Your task to perform on an android device: refresh tabs in the chrome app Image 0: 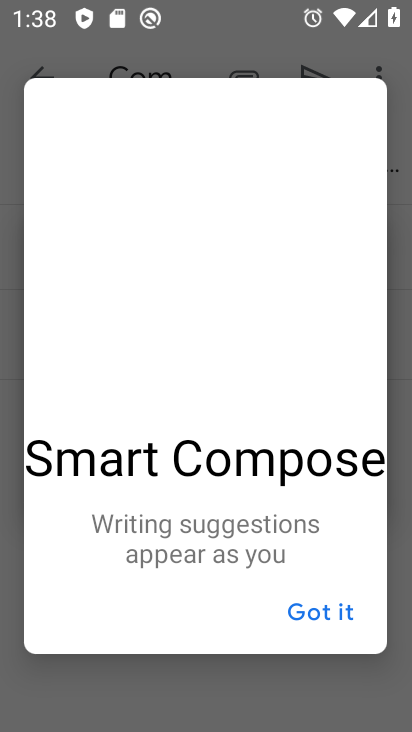
Step 0: press home button
Your task to perform on an android device: refresh tabs in the chrome app Image 1: 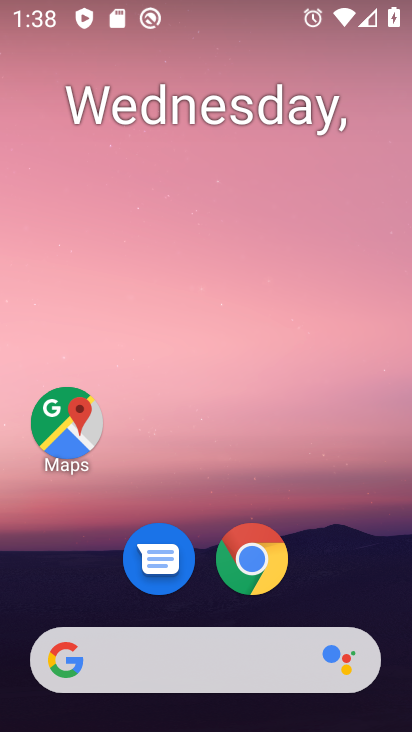
Step 1: click (264, 542)
Your task to perform on an android device: refresh tabs in the chrome app Image 2: 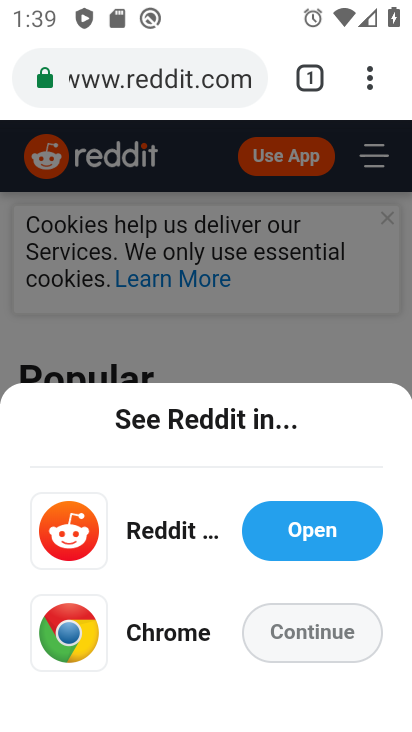
Step 2: click (374, 67)
Your task to perform on an android device: refresh tabs in the chrome app Image 3: 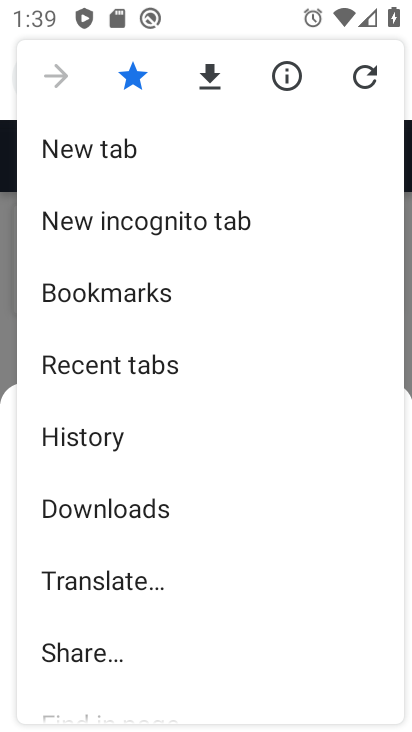
Step 3: click (361, 80)
Your task to perform on an android device: refresh tabs in the chrome app Image 4: 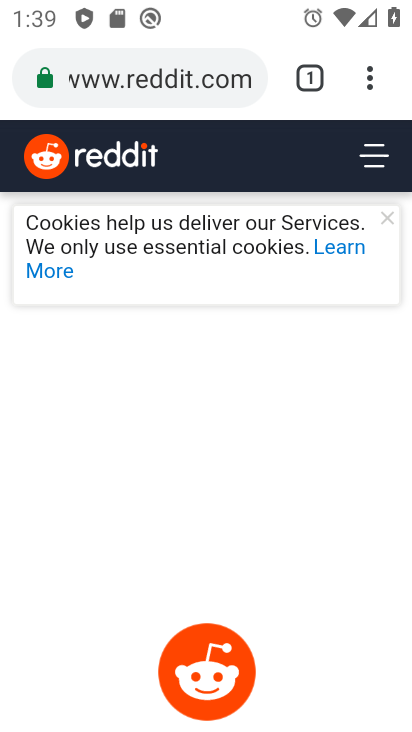
Step 4: task complete